Your task to perform on an android device: toggle wifi Image 0: 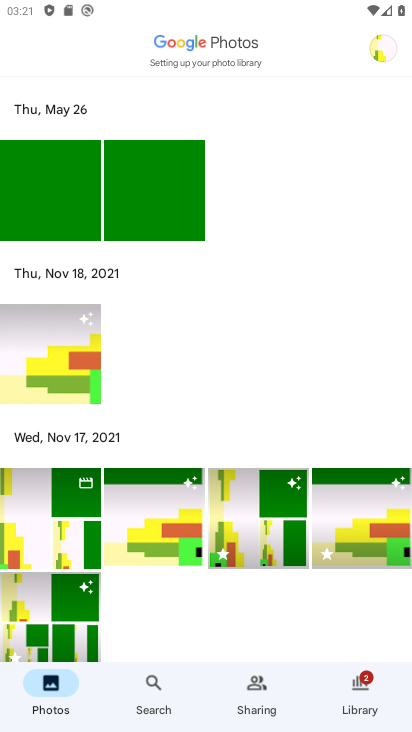
Step 0: press home button
Your task to perform on an android device: toggle wifi Image 1: 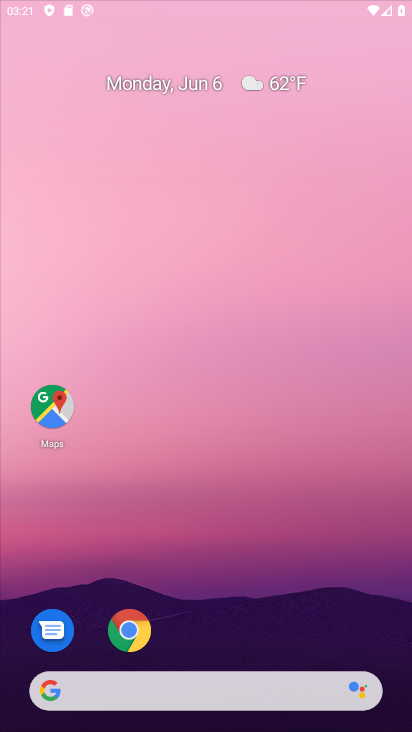
Step 1: drag from (290, 0) to (220, 644)
Your task to perform on an android device: toggle wifi Image 2: 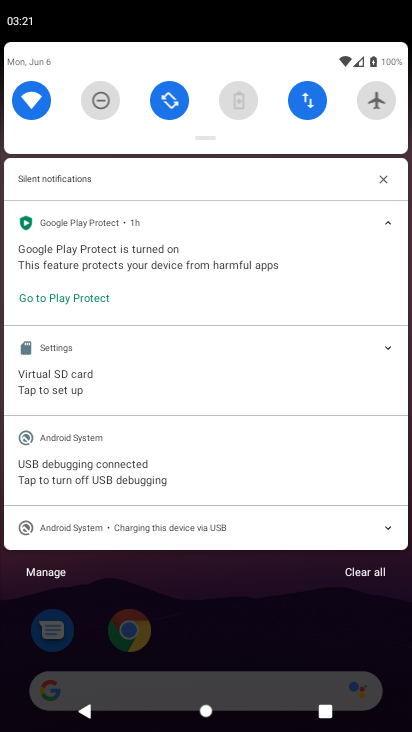
Step 2: click (36, 108)
Your task to perform on an android device: toggle wifi Image 3: 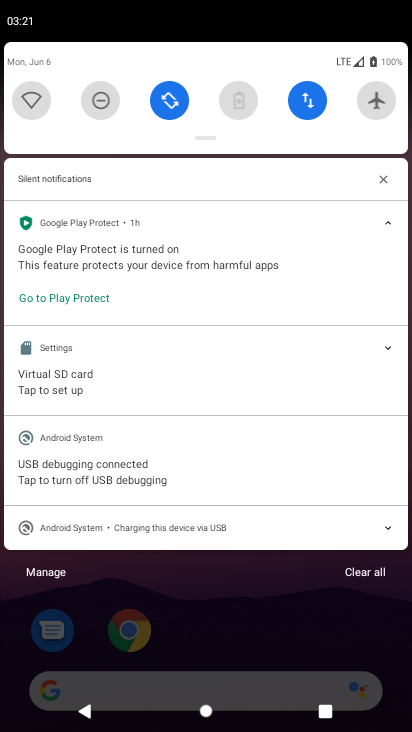
Step 3: task complete